Your task to perform on an android device: turn on the 24-hour format for clock Image 0: 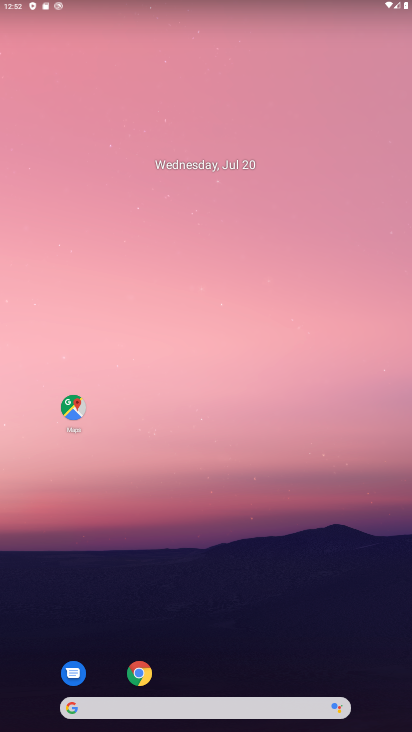
Step 0: drag from (251, 667) to (222, 123)
Your task to perform on an android device: turn on the 24-hour format for clock Image 1: 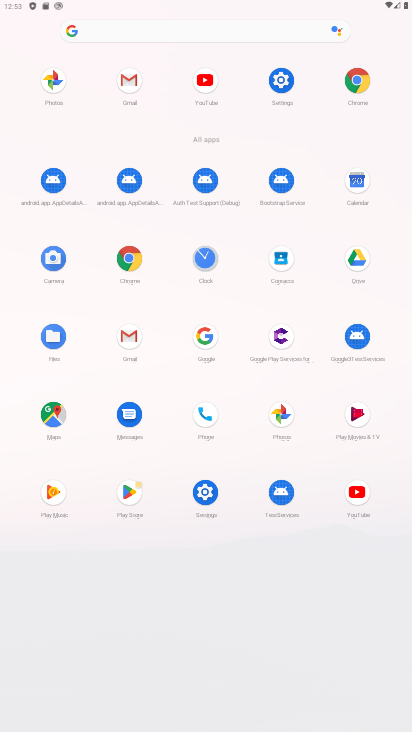
Step 1: click (217, 261)
Your task to perform on an android device: turn on the 24-hour format for clock Image 2: 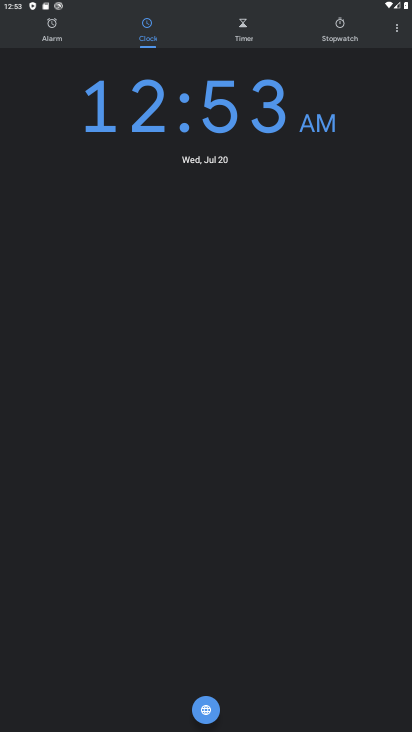
Step 2: click (403, 34)
Your task to perform on an android device: turn on the 24-hour format for clock Image 3: 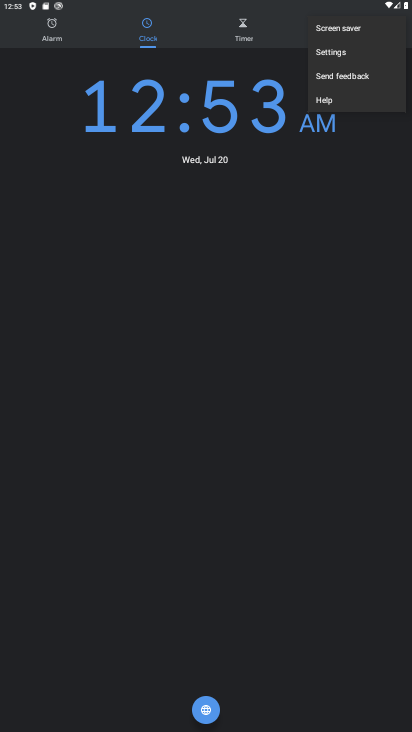
Step 3: click (348, 54)
Your task to perform on an android device: turn on the 24-hour format for clock Image 4: 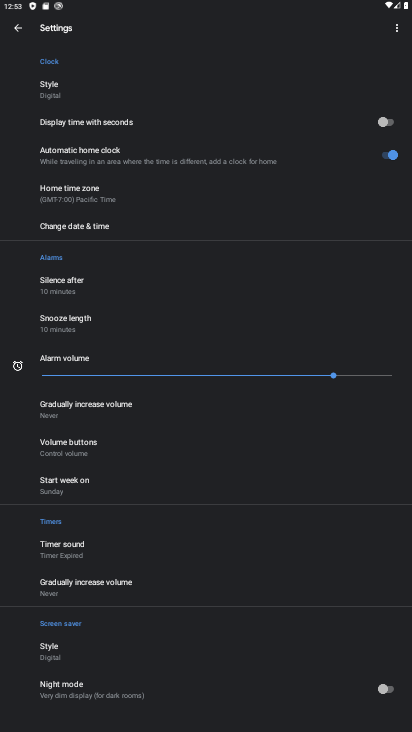
Step 4: click (105, 230)
Your task to perform on an android device: turn on the 24-hour format for clock Image 5: 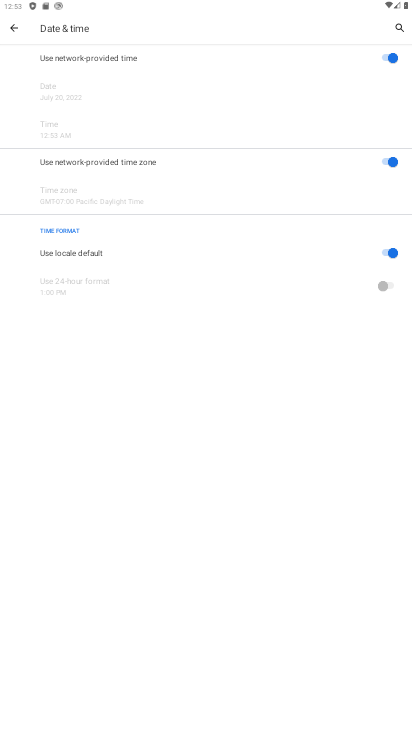
Step 5: click (388, 257)
Your task to perform on an android device: turn on the 24-hour format for clock Image 6: 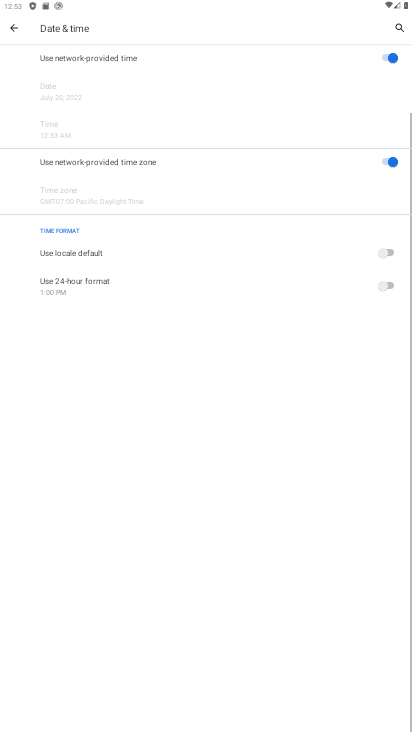
Step 6: click (390, 283)
Your task to perform on an android device: turn on the 24-hour format for clock Image 7: 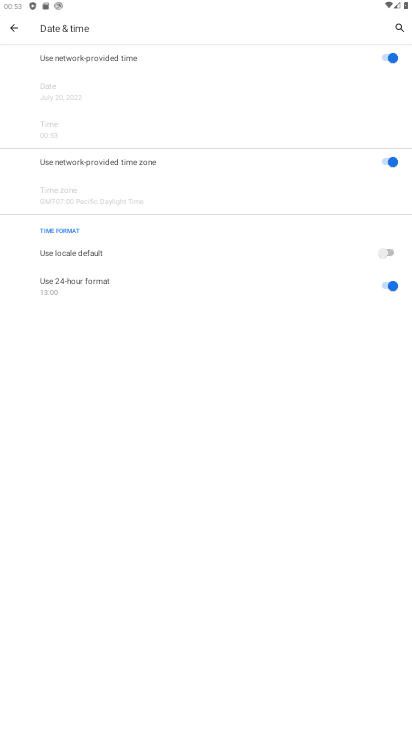
Step 7: task complete